Your task to perform on an android device: Open internet settings Image 0: 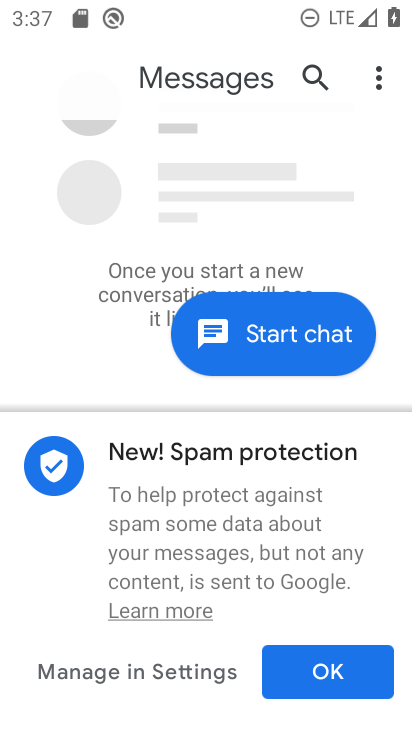
Step 0: press home button
Your task to perform on an android device: Open internet settings Image 1: 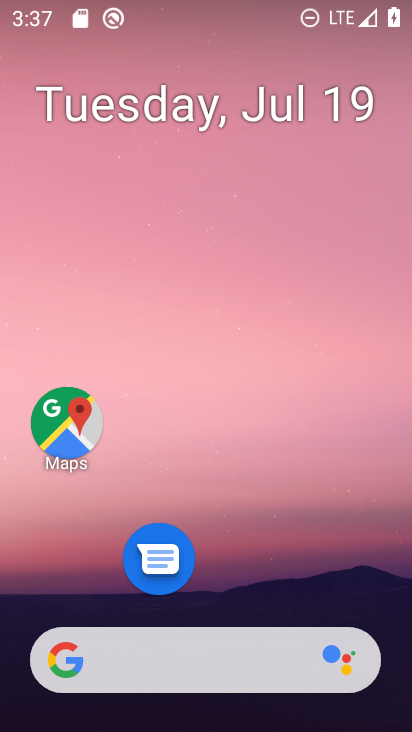
Step 1: drag from (118, 612) to (349, 0)
Your task to perform on an android device: Open internet settings Image 2: 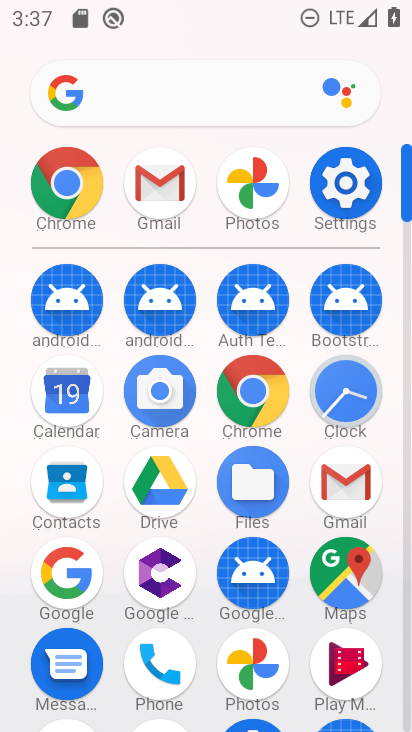
Step 2: click (334, 193)
Your task to perform on an android device: Open internet settings Image 3: 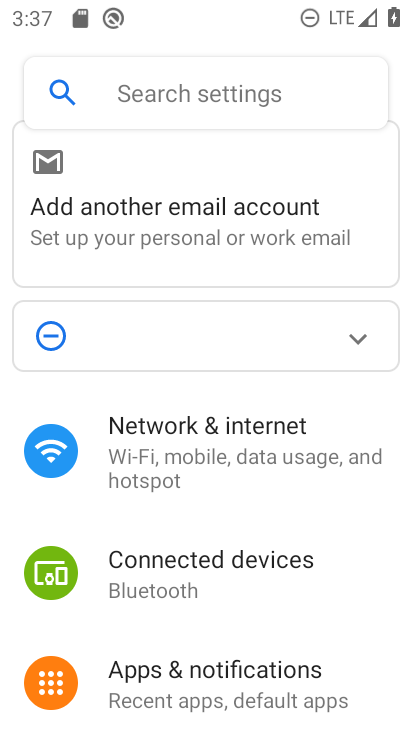
Step 3: drag from (184, 596) to (218, 310)
Your task to perform on an android device: Open internet settings Image 4: 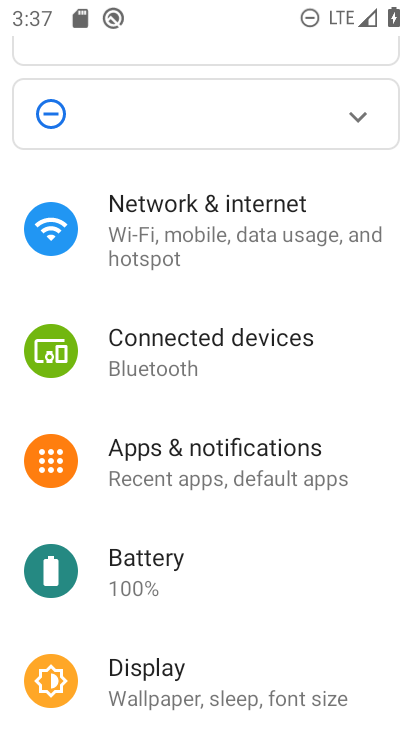
Step 4: click (222, 263)
Your task to perform on an android device: Open internet settings Image 5: 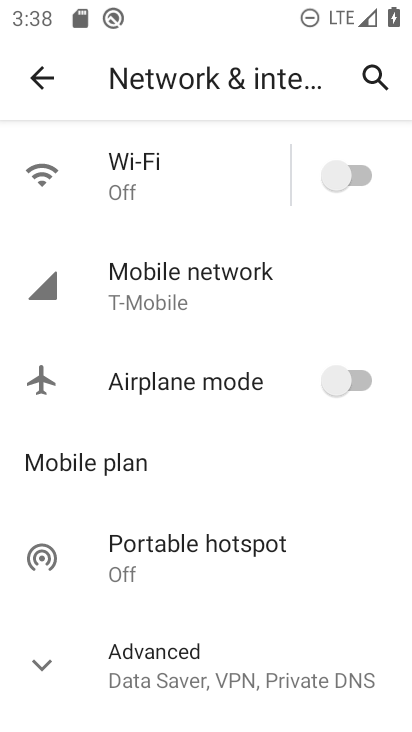
Step 5: click (150, 297)
Your task to perform on an android device: Open internet settings Image 6: 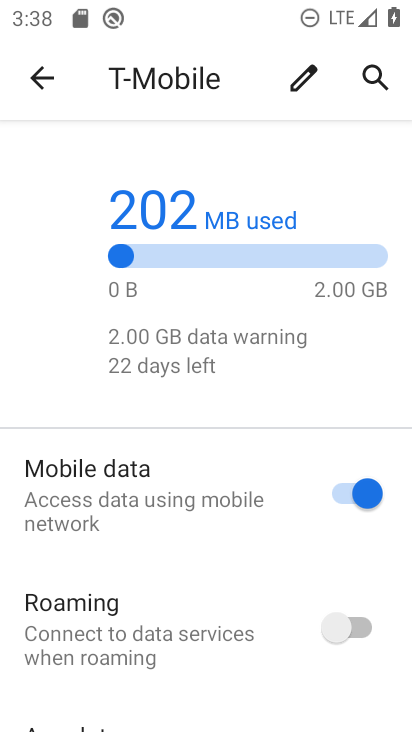
Step 6: drag from (158, 575) to (212, 221)
Your task to perform on an android device: Open internet settings Image 7: 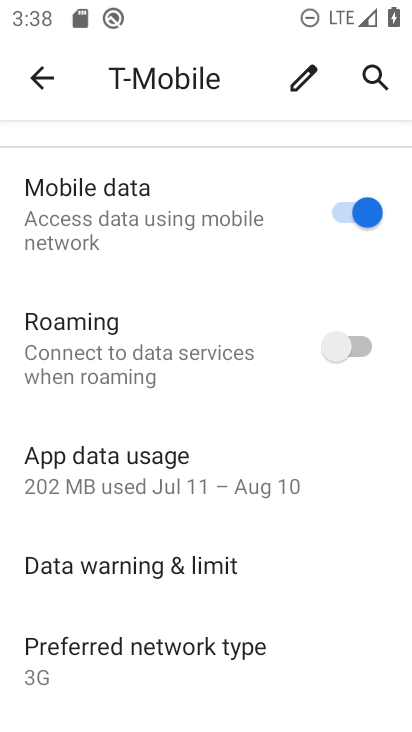
Step 7: click (188, 466)
Your task to perform on an android device: Open internet settings Image 8: 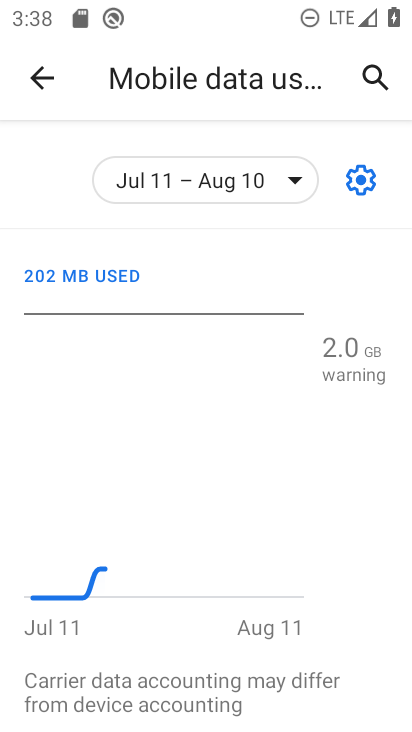
Step 8: task complete